Your task to perform on an android device: turn off wifi Image 0: 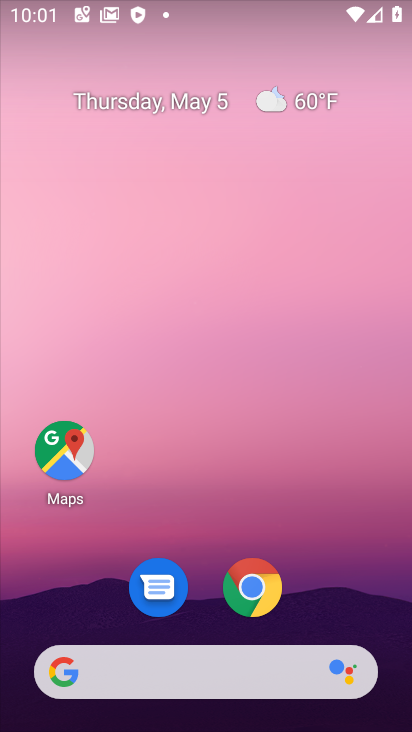
Step 0: click (245, 127)
Your task to perform on an android device: turn off wifi Image 1: 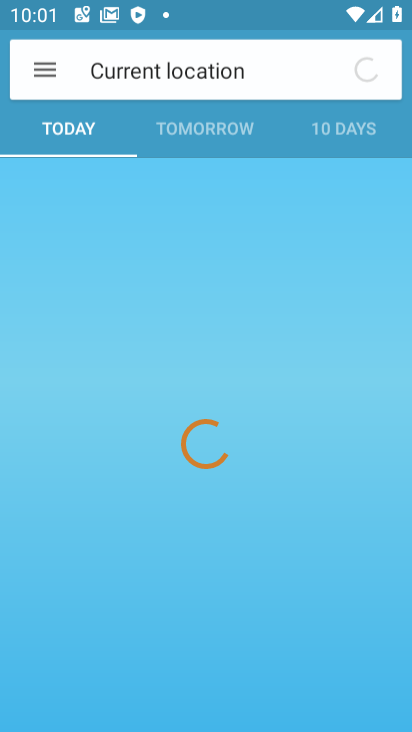
Step 1: drag from (72, 643) to (214, 87)
Your task to perform on an android device: turn off wifi Image 2: 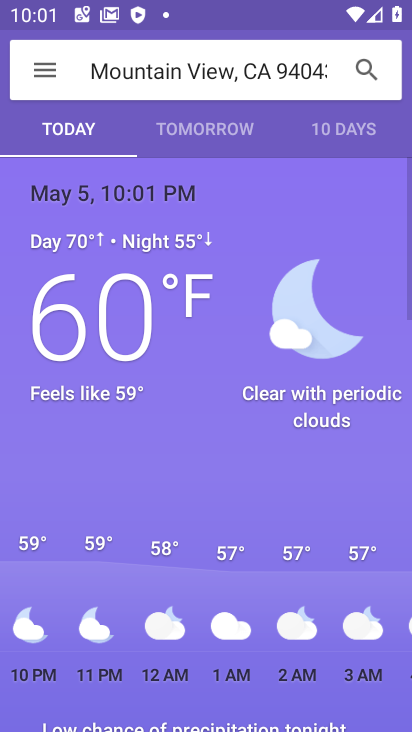
Step 2: press home button
Your task to perform on an android device: turn off wifi Image 3: 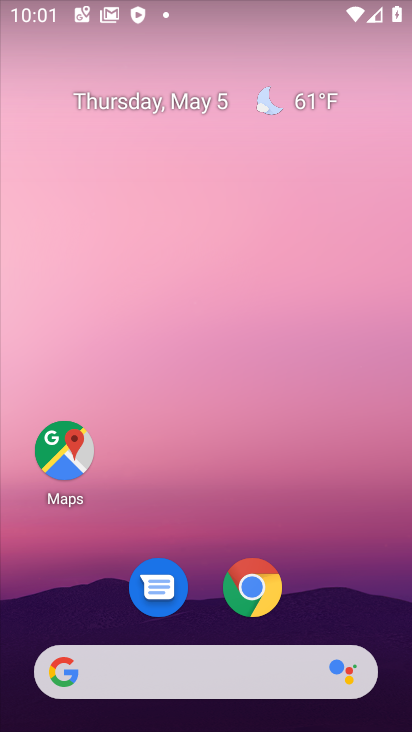
Step 3: drag from (64, 636) to (185, 88)
Your task to perform on an android device: turn off wifi Image 4: 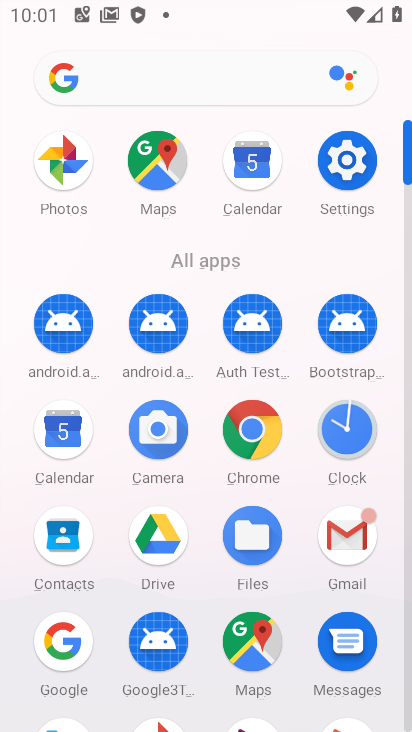
Step 4: click (339, 151)
Your task to perform on an android device: turn off wifi Image 5: 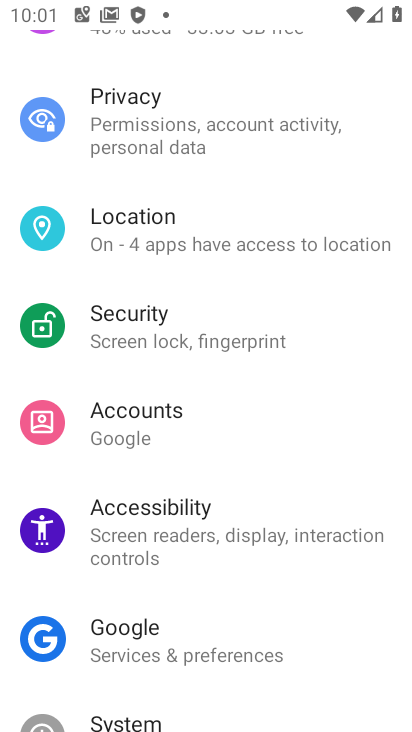
Step 5: drag from (195, 144) to (158, 564)
Your task to perform on an android device: turn off wifi Image 6: 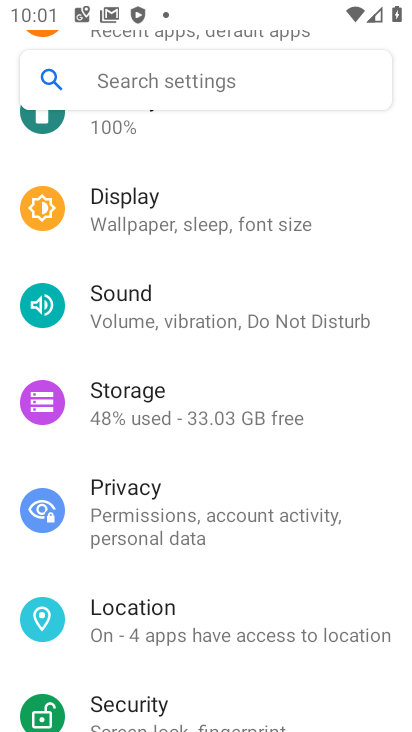
Step 6: drag from (205, 207) to (141, 569)
Your task to perform on an android device: turn off wifi Image 7: 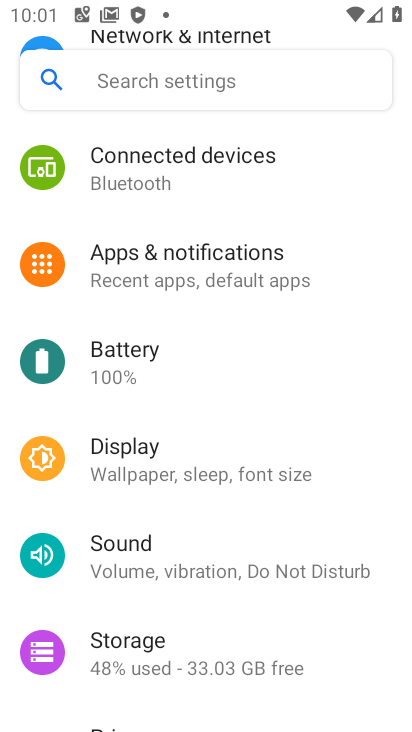
Step 7: drag from (168, 176) to (128, 564)
Your task to perform on an android device: turn off wifi Image 8: 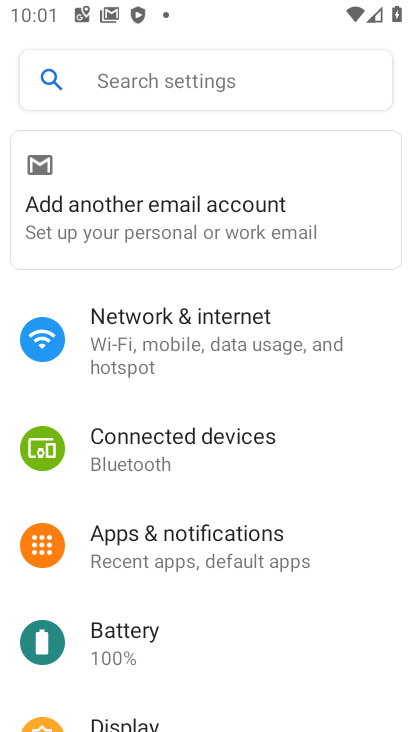
Step 8: click (183, 346)
Your task to perform on an android device: turn off wifi Image 9: 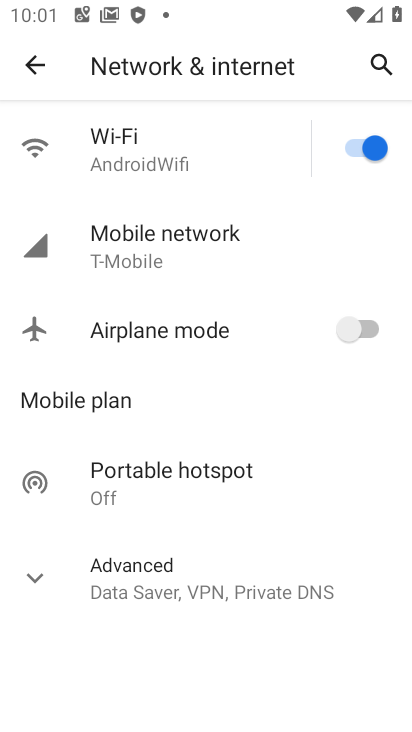
Step 9: click (349, 146)
Your task to perform on an android device: turn off wifi Image 10: 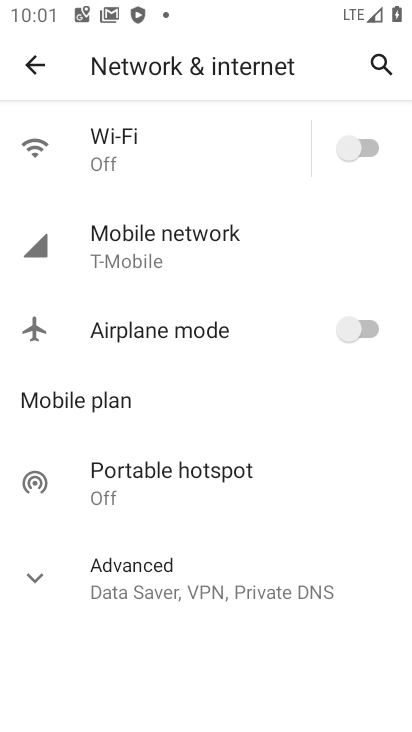
Step 10: task complete